Your task to perform on an android device: change timer sound Image 0: 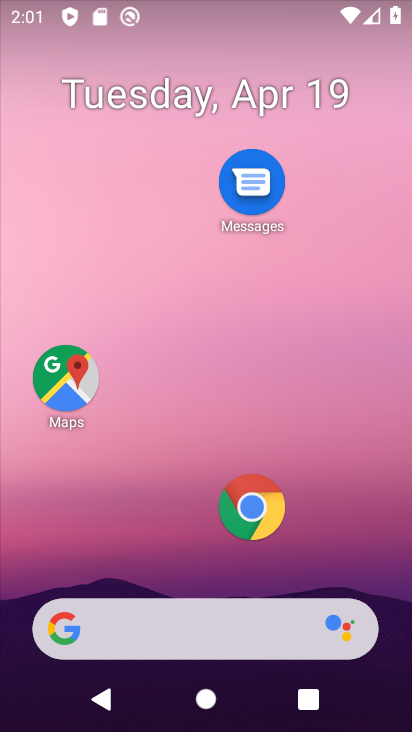
Step 0: drag from (133, 579) to (252, 20)
Your task to perform on an android device: change timer sound Image 1: 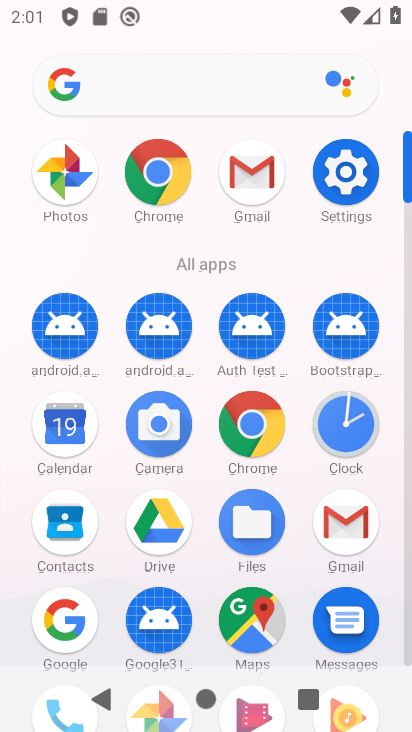
Step 1: click (355, 427)
Your task to perform on an android device: change timer sound Image 2: 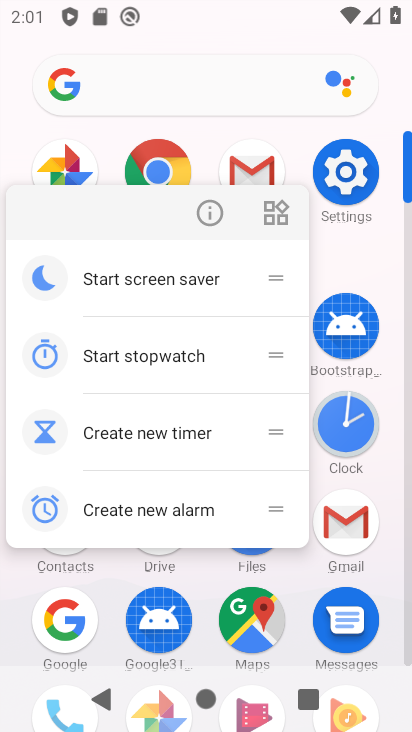
Step 2: click (363, 456)
Your task to perform on an android device: change timer sound Image 3: 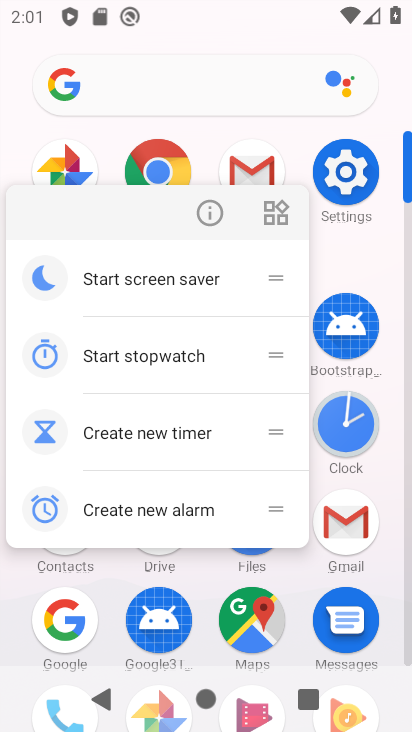
Step 3: click (349, 413)
Your task to perform on an android device: change timer sound Image 4: 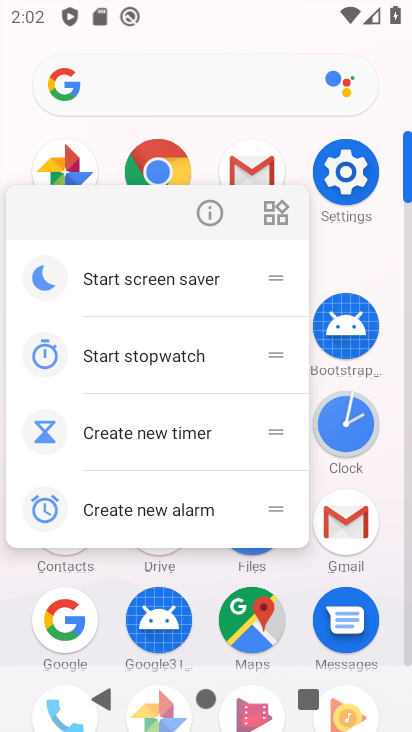
Step 4: click (343, 443)
Your task to perform on an android device: change timer sound Image 5: 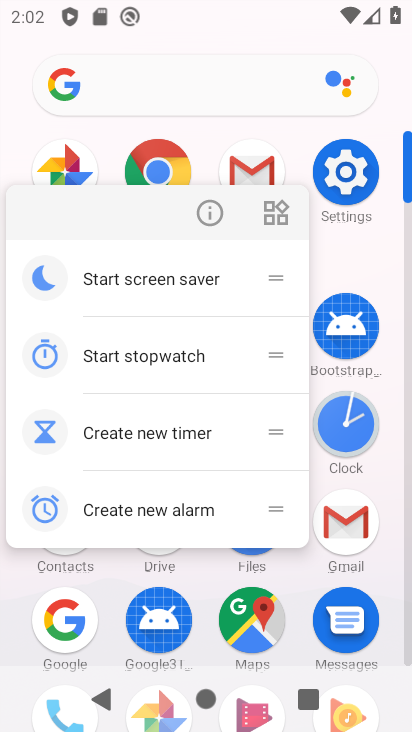
Step 5: click (357, 425)
Your task to perform on an android device: change timer sound Image 6: 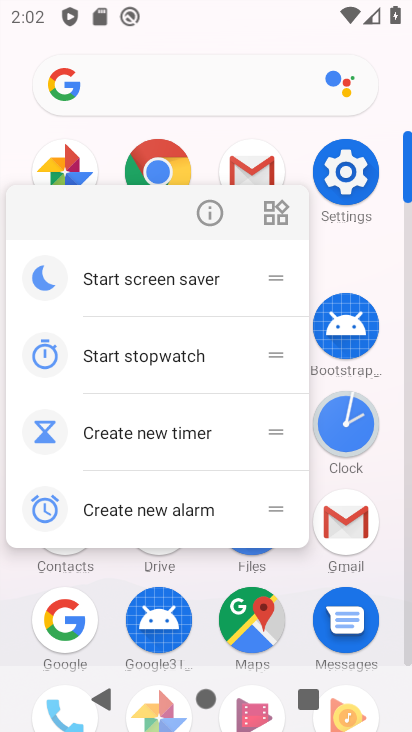
Step 6: click (357, 425)
Your task to perform on an android device: change timer sound Image 7: 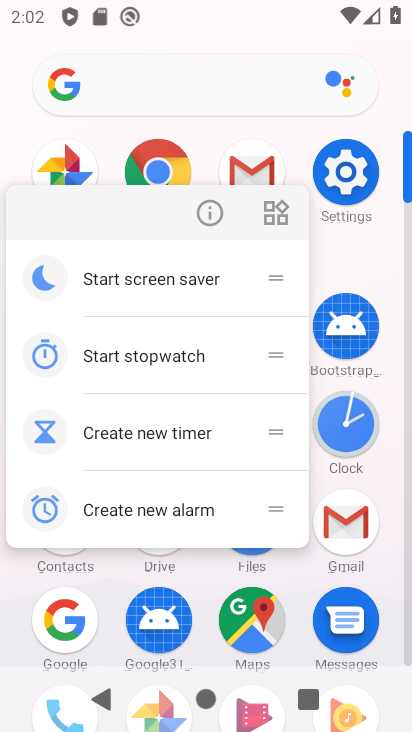
Step 7: click (357, 425)
Your task to perform on an android device: change timer sound Image 8: 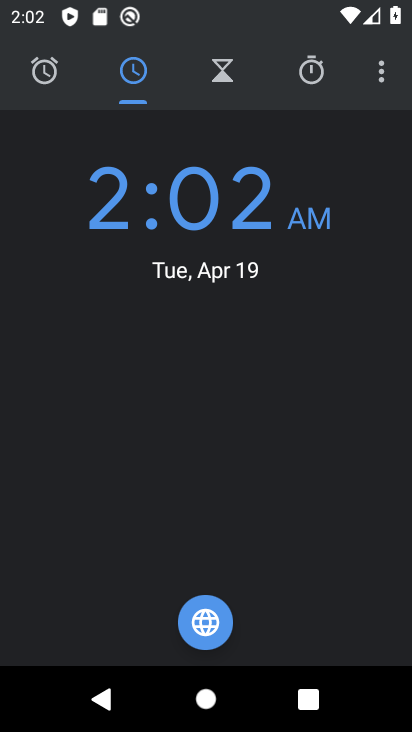
Step 8: click (355, 428)
Your task to perform on an android device: change timer sound Image 9: 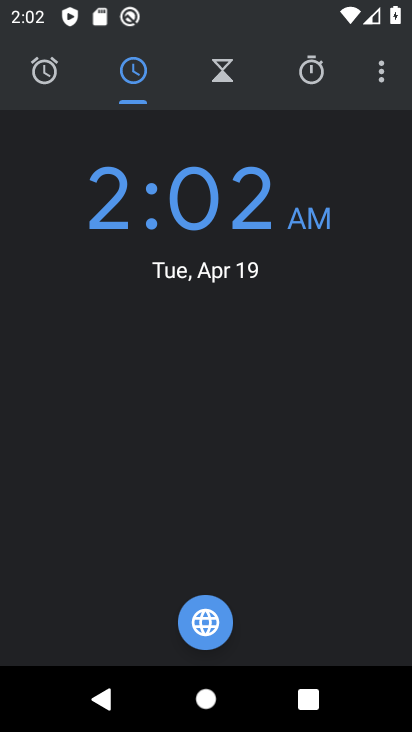
Step 9: click (387, 80)
Your task to perform on an android device: change timer sound Image 10: 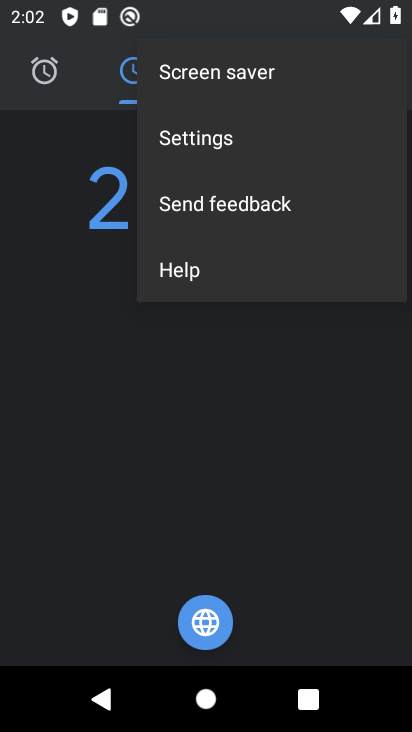
Step 10: click (296, 153)
Your task to perform on an android device: change timer sound Image 11: 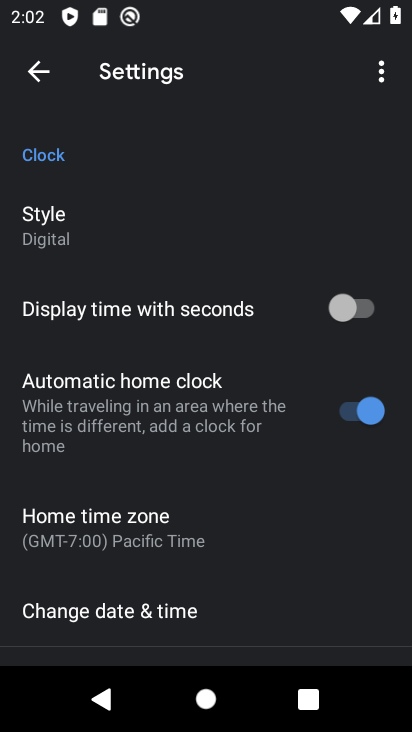
Step 11: drag from (168, 544) to (269, 210)
Your task to perform on an android device: change timer sound Image 12: 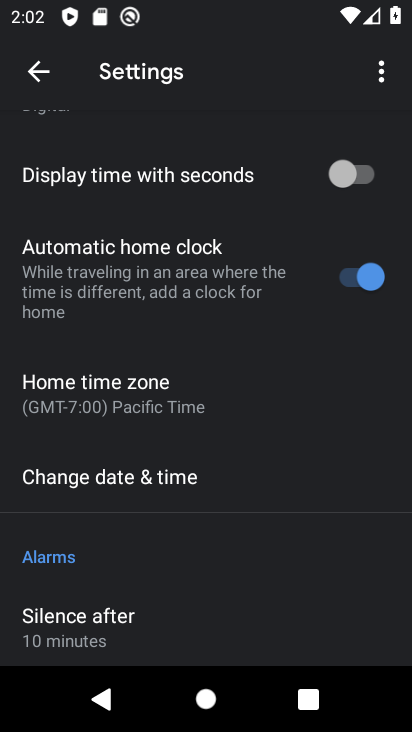
Step 12: drag from (198, 560) to (276, 267)
Your task to perform on an android device: change timer sound Image 13: 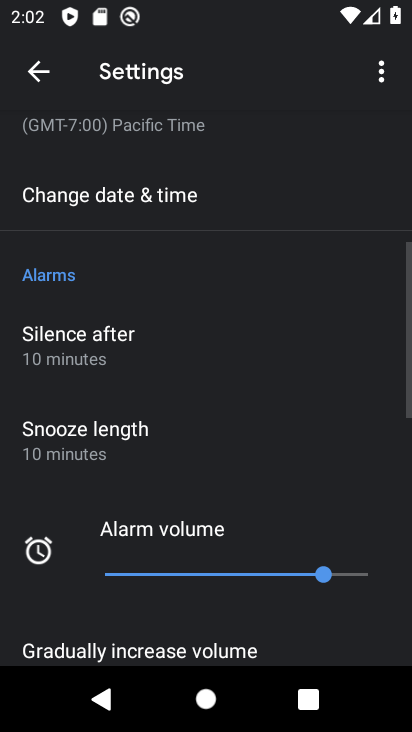
Step 13: drag from (203, 522) to (272, 306)
Your task to perform on an android device: change timer sound Image 14: 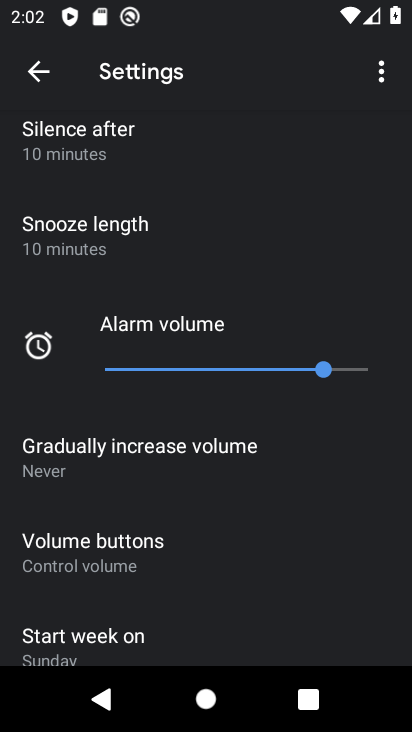
Step 14: drag from (116, 659) to (208, 351)
Your task to perform on an android device: change timer sound Image 15: 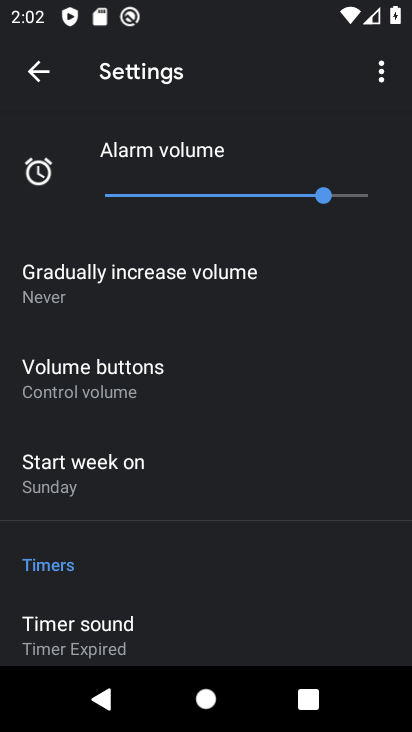
Step 15: drag from (158, 598) to (233, 379)
Your task to perform on an android device: change timer sound Image 16: 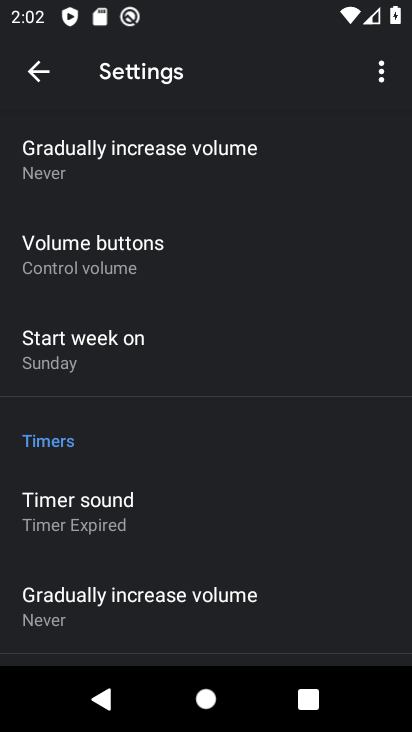
Step 16: click (164, 530)
Your task to perform on an android device: change timer sound Image 17: 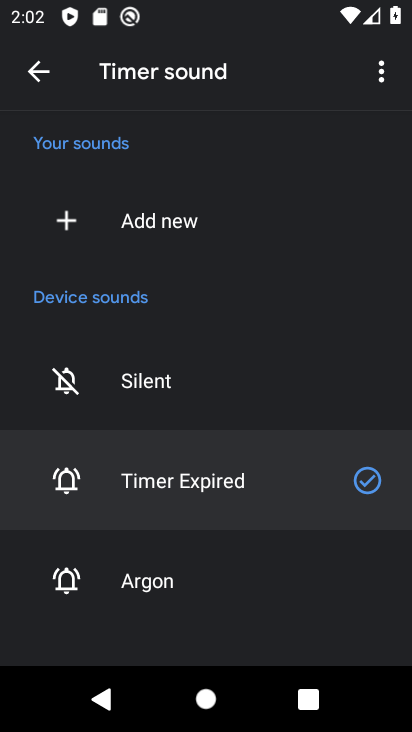
Step 17: drag from (210, 596) to (324, 256)
Your task to perform on an android device: change timer sound Image 18: 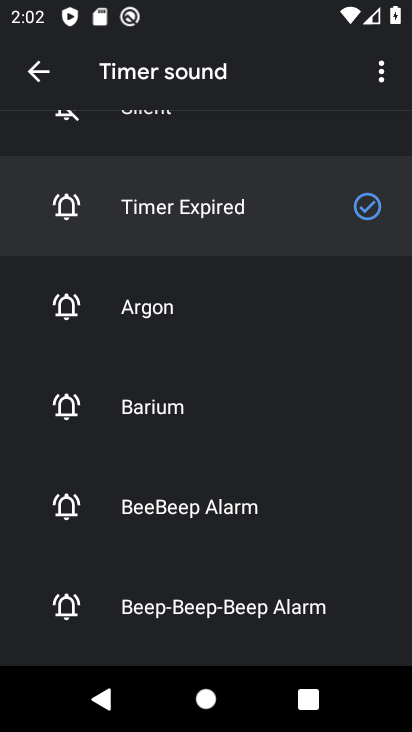
Step 18: click (195, 511)
Your task to perform on an android device: change timer sound Image 19: 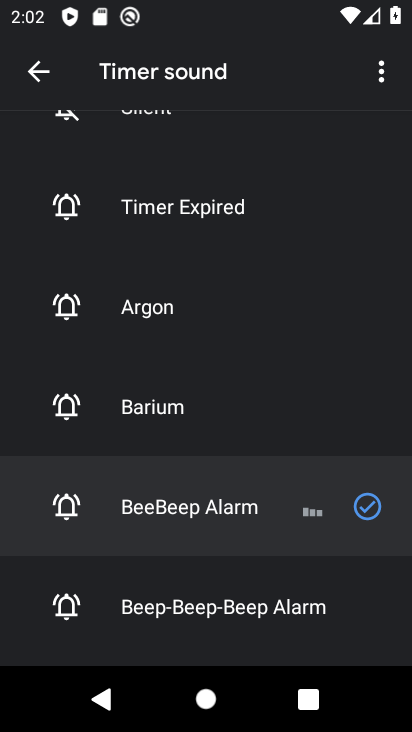
Step 19: task complete